Your task to perform on an android device: find photos in the google photos app Image 0: 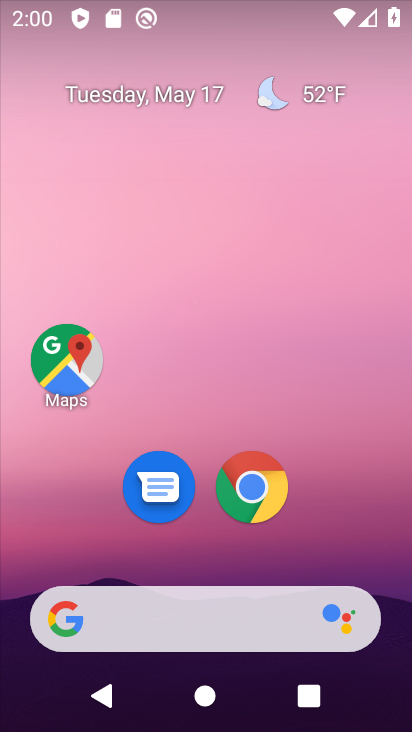
Step 0: click (364, 360)
Your task to perform on an android device: find photos in the google photos app Image 1: 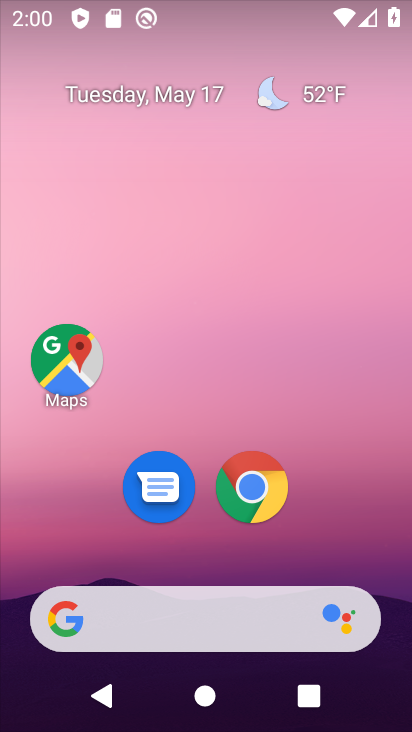
Step 1: drag from (406, 503) to (411, 148)
Your task to perform on an android device: find photos in the google photos app Image 2: 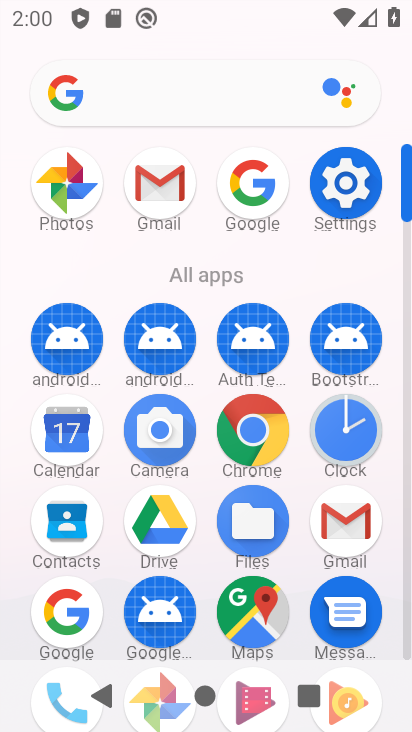
Step 2: click (405, 154)
Your task to perform on an android device: find photos in the google photos app Image 3: 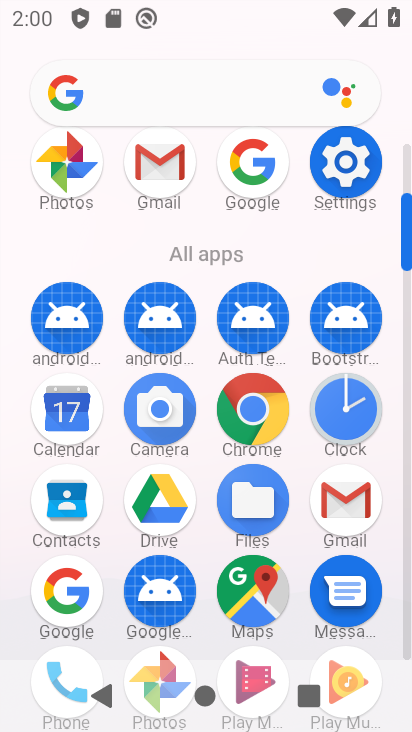
Step 3: drag from (411, 199) to (402, 124)
Your task to perform on an android device: find photos in the google photos app Image 4: 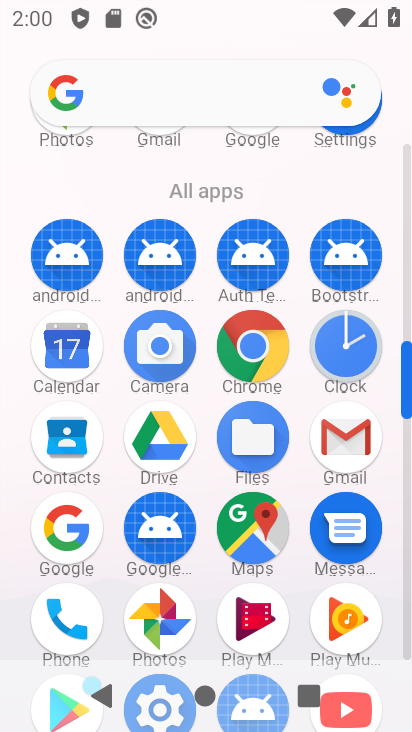
Step 4: click (165, 585)
Your task to perform on an android device: find photos in the google photos app Image 5: 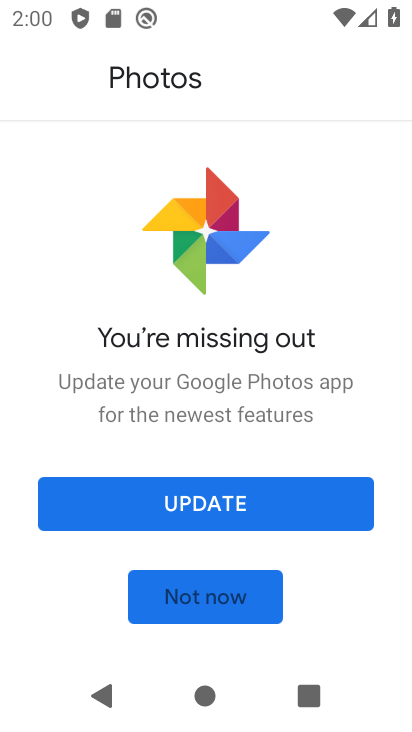
Step 5: click (218, 493)
Your task to perform on an android device: find photos in the google photos app Image 6: 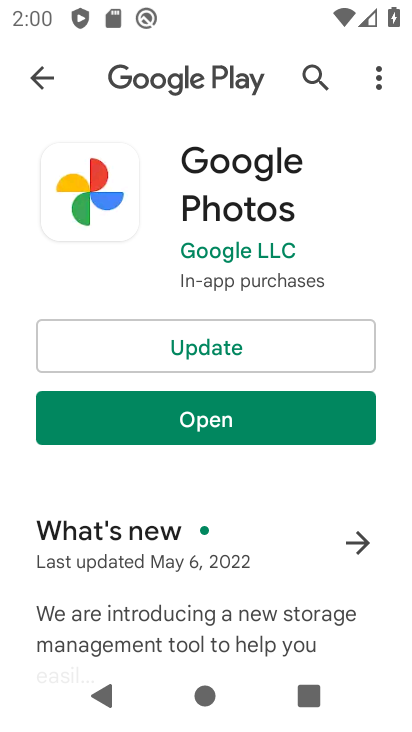
Step 6: click (244, 355)
Your task to perform on an android device: find photos in the google photos app Image 7: 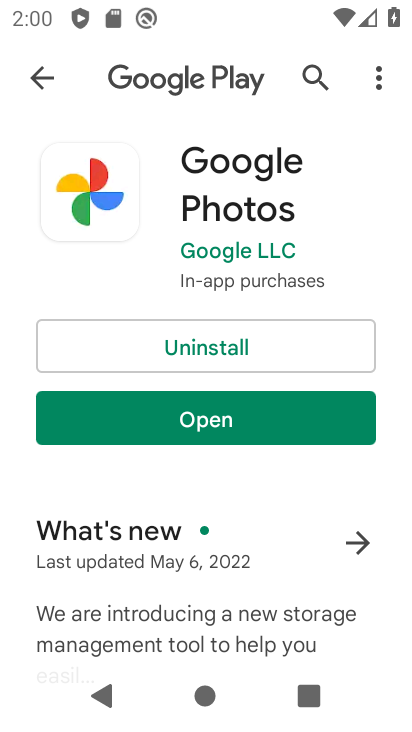
Step 7: click (230, 423)
Your task to perform on an android device: find photos in the google photos app Image 8: 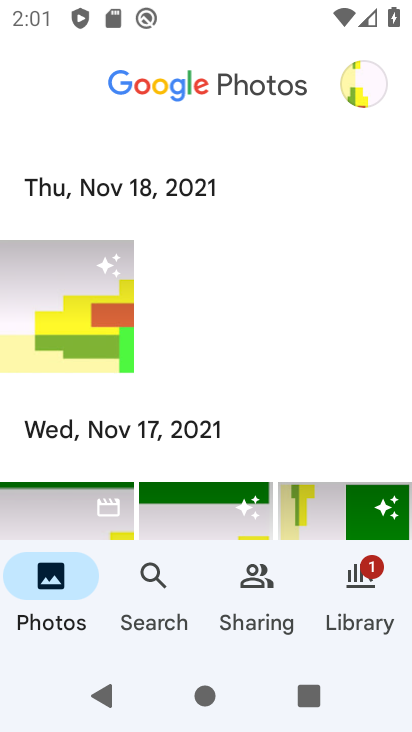
Step 8: click (101, 326)
Your task to perform on an android device: find photos in the google photos app Image 9: 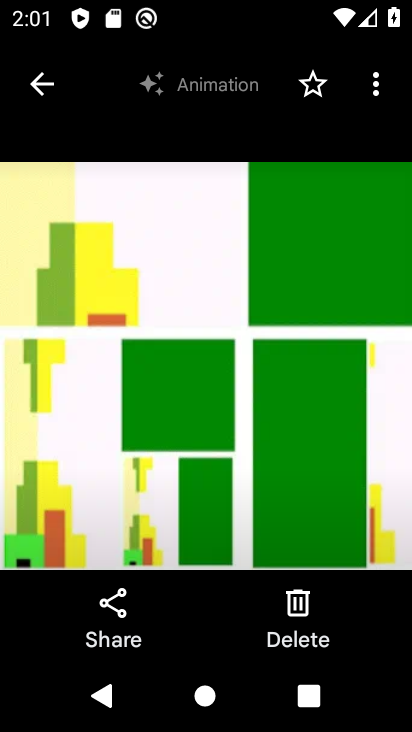
Step 9: task complete